Your task to perform on an android device: Open the map Image 0: 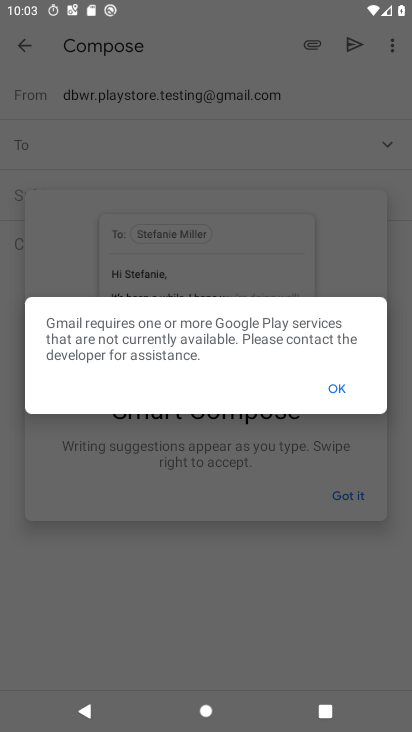
Step 0: press home button
Your task to perform on an android device: Open the map Image 1: 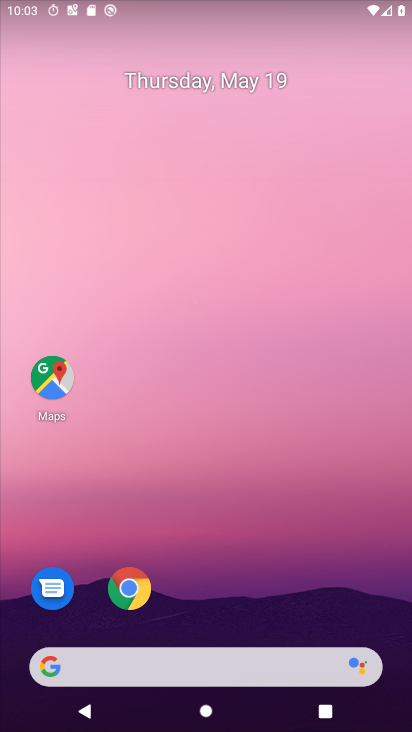
Step 1: click (53, 373)
Your task to perform on an android device: Open the map Image 2: 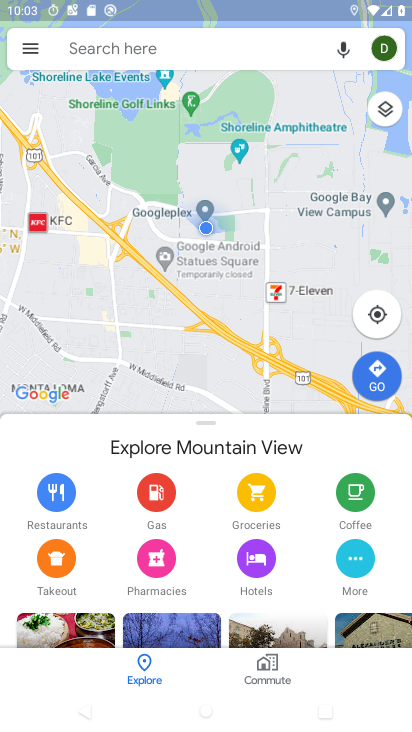
Step 2: task complete